Your task to perform on an android device: Show me recent news Image 0: 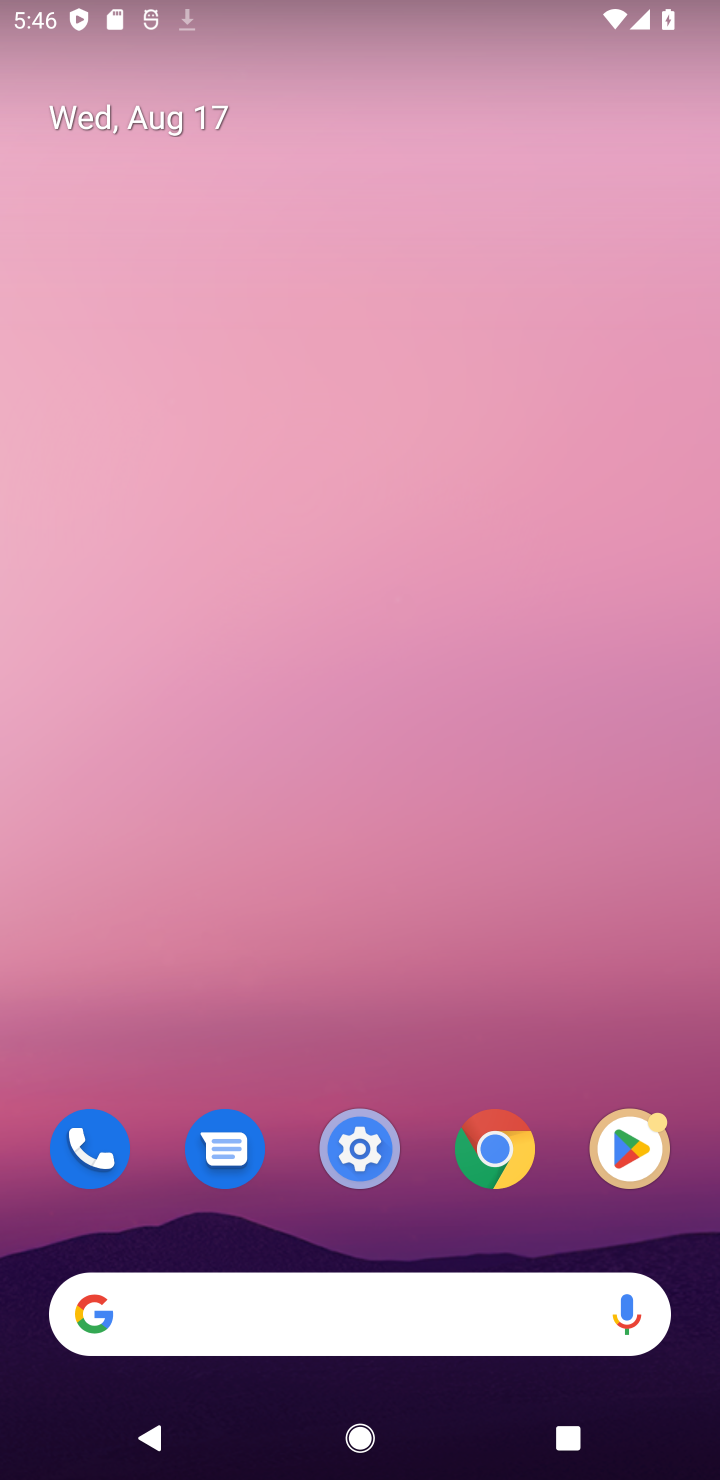
Step 0: click (76, 1306)
Your task to perform on an android device: Show me recent news Image 1: 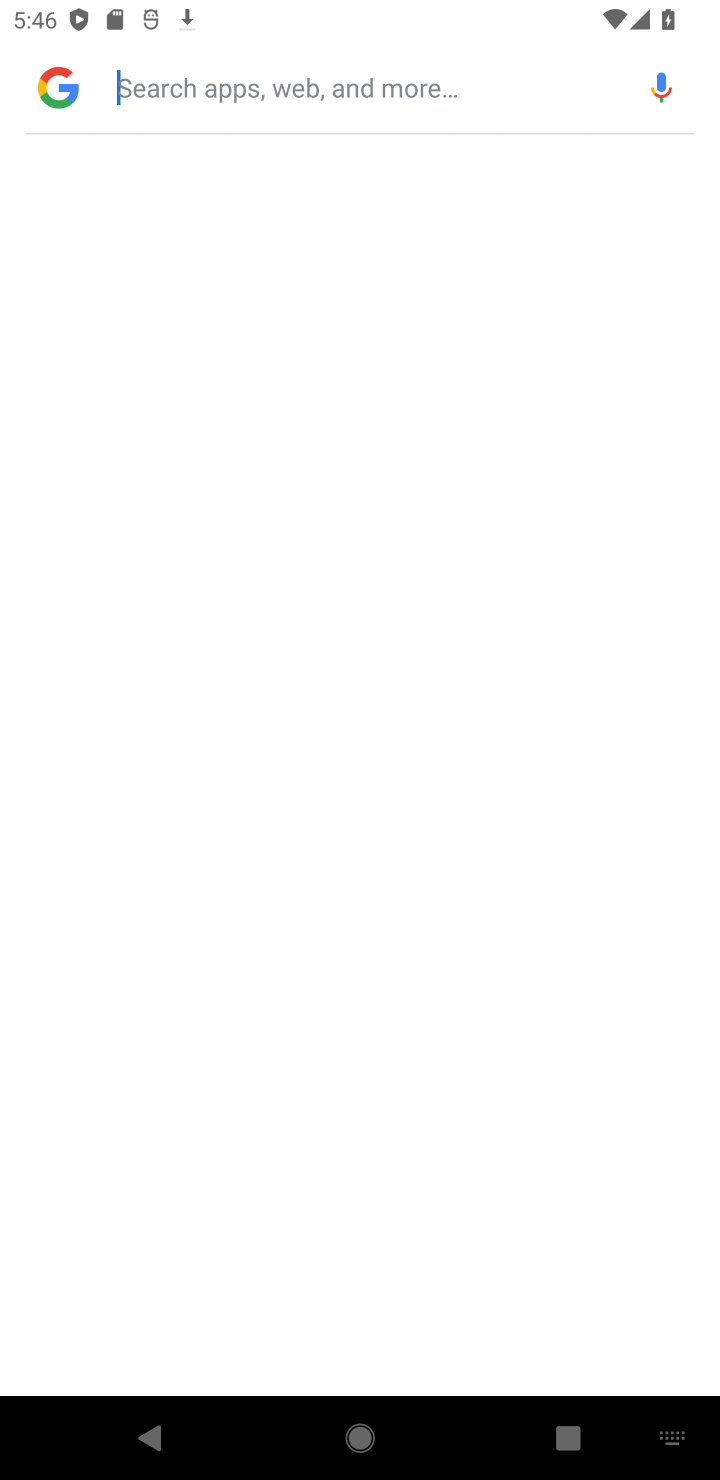
Step 1: click (34, 84)
Your task to perform on an android device: Show me recent news Image 2: 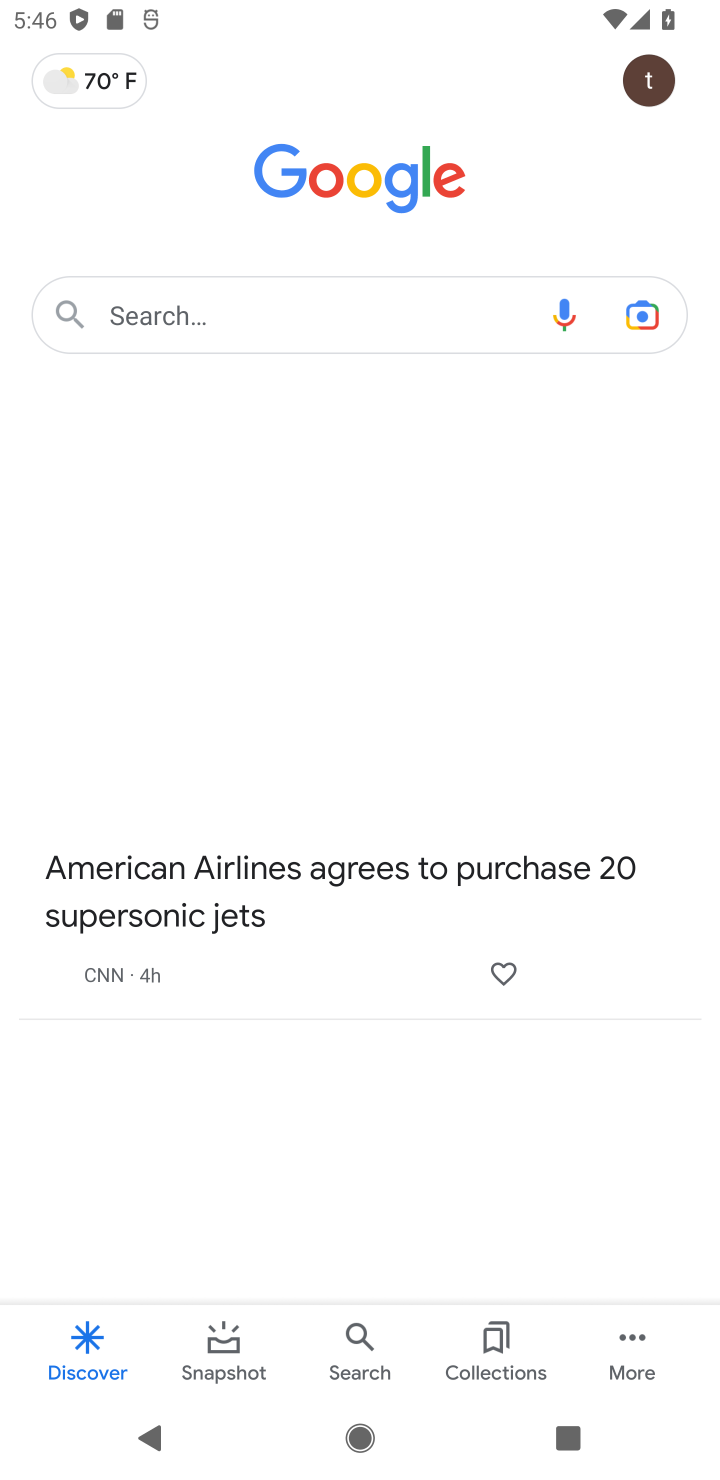
Step 2: task complete